Your task to perform on an android device: Open calendar and show me the first week of next month Image 0: 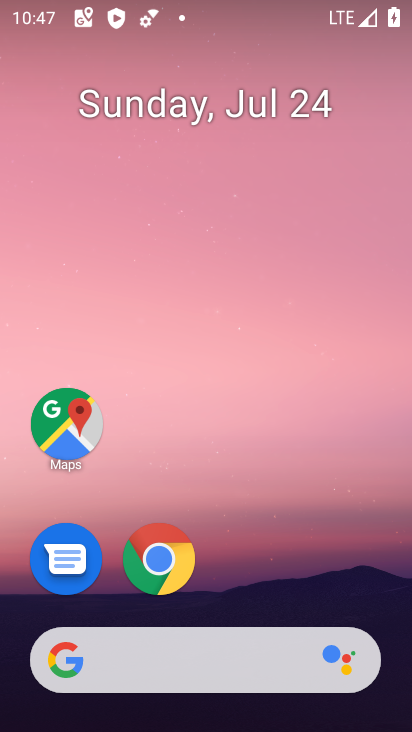
Step 0: drag from (263, 622) to (338, 22)
Your task to perform on an android device: Open calendar and show me the first week of next month Image 1: 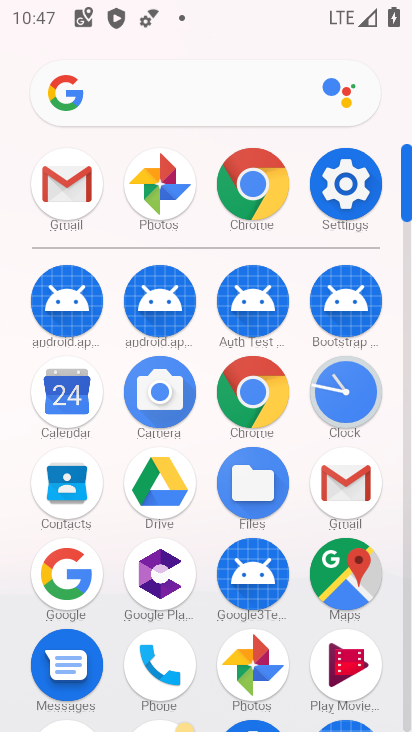
Step 1: click (64, 409)
Your task to perform on an android device: Open calendar and show me the first week of next month Image 2: 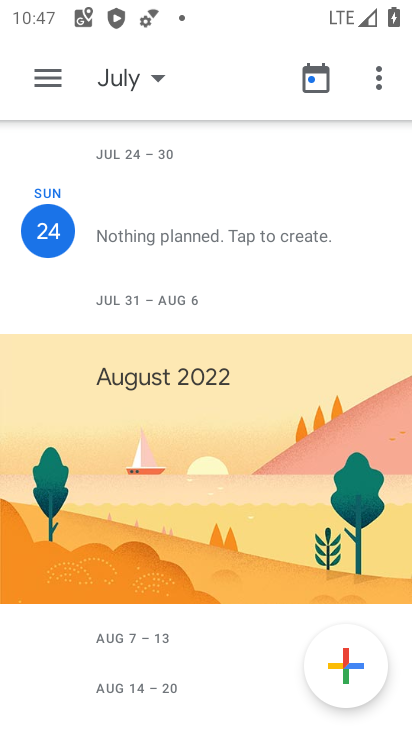
Step 2: drag from (247, 285) to (201, 654)
Your task to perform on an android device: Open calendar and show me the first week of next month Image 3: 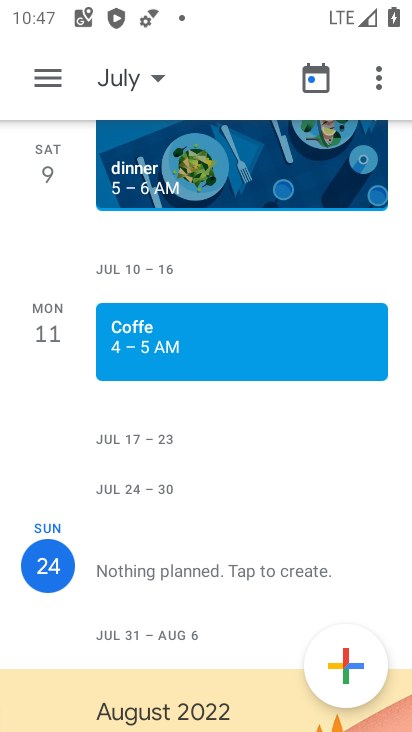
Step 3: click (159, 75)
Your task to perform on an android device: Open calendar and show me the first week of next month Image 4: 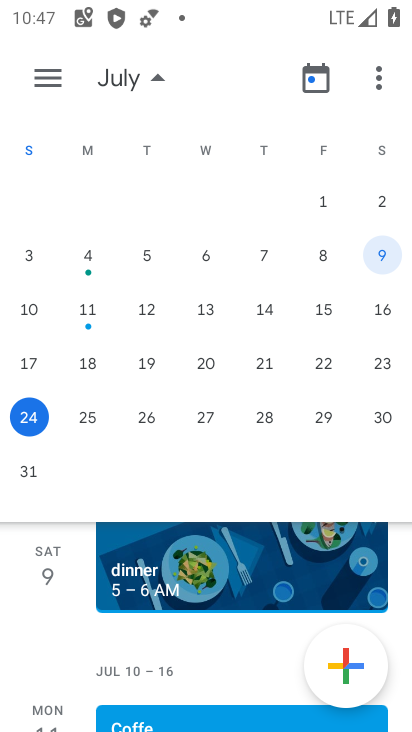
Step 4: drag from (383, 311) to (12, 315)
Your task to perform on an android device: Open calendar and show me the first week of next month Image 5: 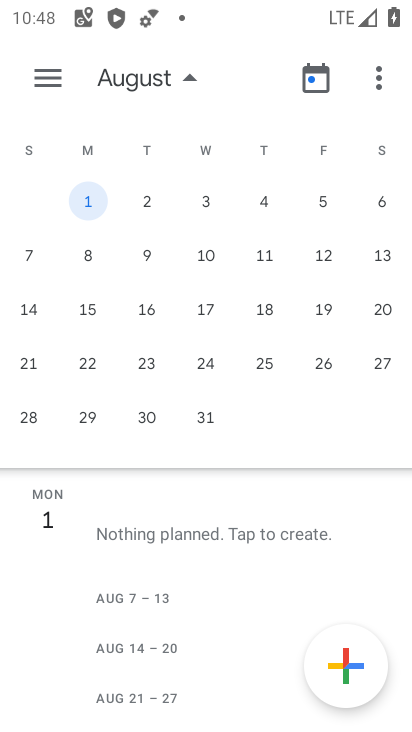
Step 5: click (87, 194)
Your task to perform on an android device: Open calendar and show me the first week of next month Image 6: 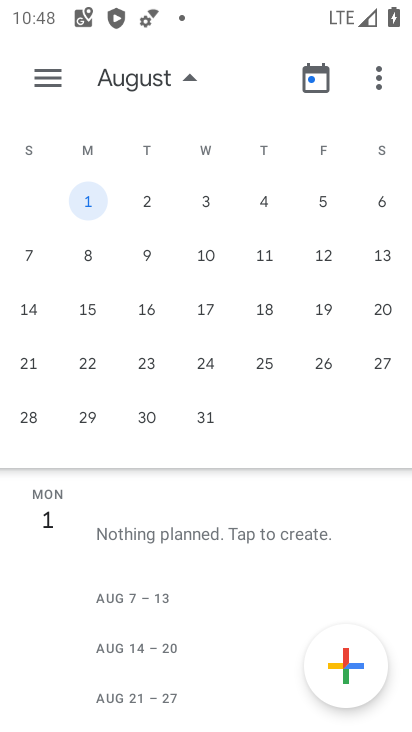
Step 6: task complete